Your task to perform on an android device: turn on showing notifications on the lock screen Image 0: 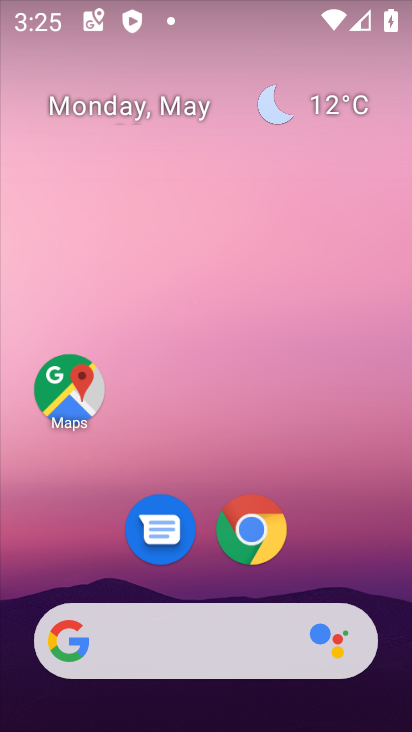
Step 0: drag from (334, 474) to (0, 284)
Your task to perform on an android device: turn on showing notifications on the lock screen Image 1: 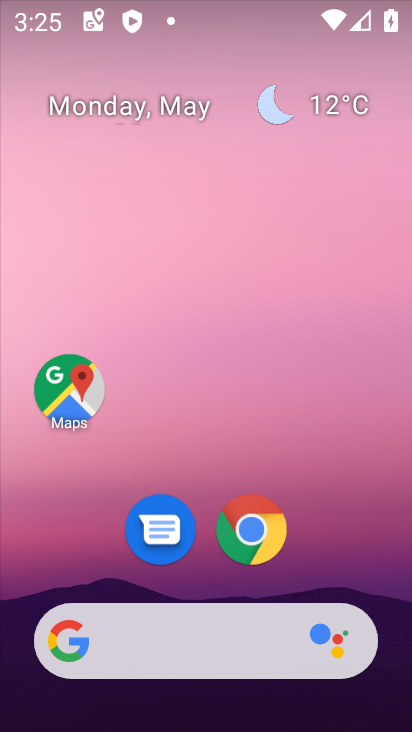
Step 1: drag from (338, 566) to (285, 160)
Your task to perform on an android device: turn on showing notifications on the lock screen Image 2: 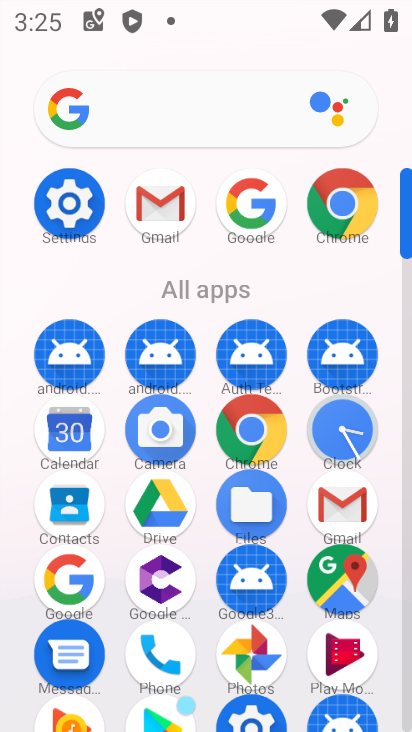
Step 2: click (64, 196)
Your task to perform on an android device: turn on showing notifications on the lock screen Image 3: 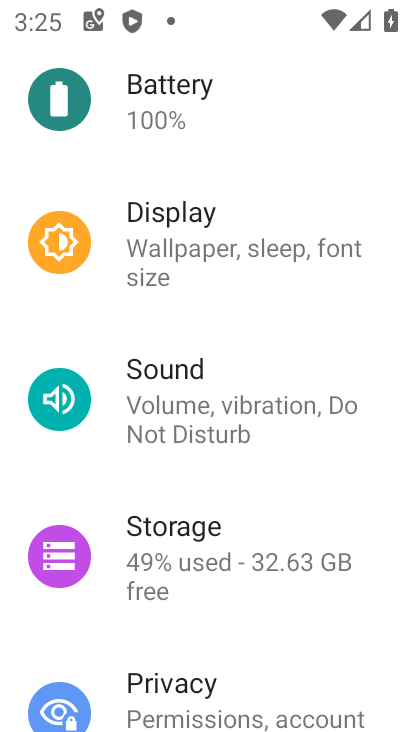
Step 3: drag from (263, 233) to (299, 598)
Your task to perform on an android device: turn on showing notifications on the lock screen Image 4: 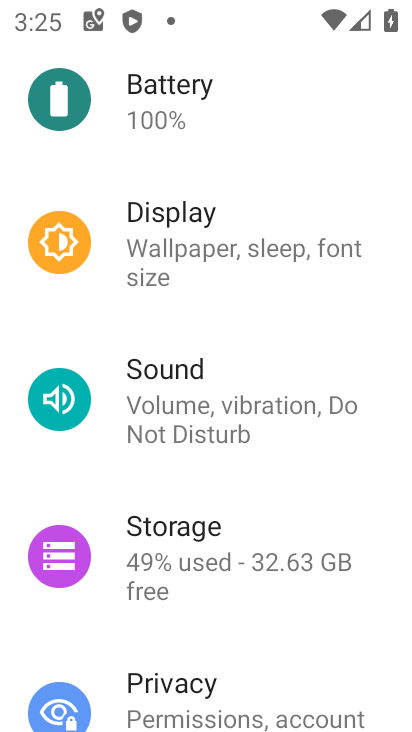
Step 4: drag from (247, 596) to (256, 724)
Your task to perform on an android device: turn on showing notifications on the lock screen Image 5: 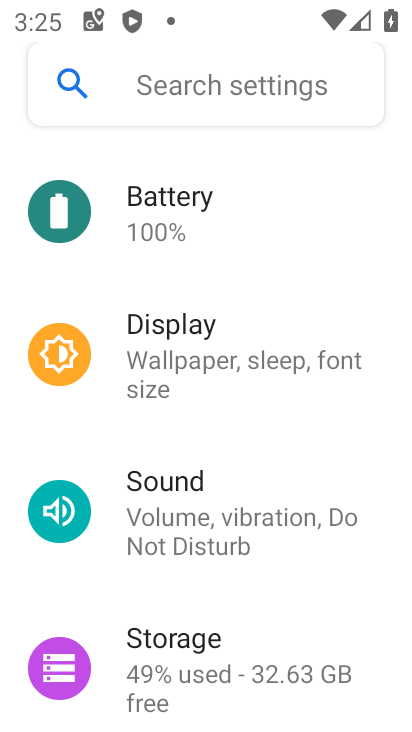
Step 5: drag from (251, 195) to (270, 605)
Your task to perform on an android device: turn on showing notifications on the lock screen Image 6: 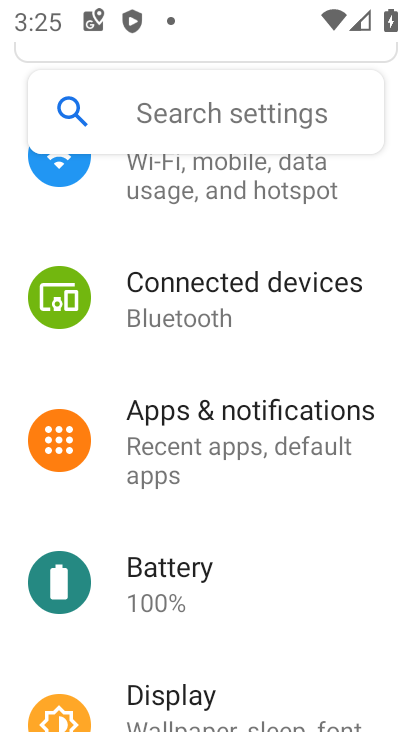
Step 6: click (230, 417)
Your task to perform on an android device: turn on showing notifications on the lock screen Image 7: 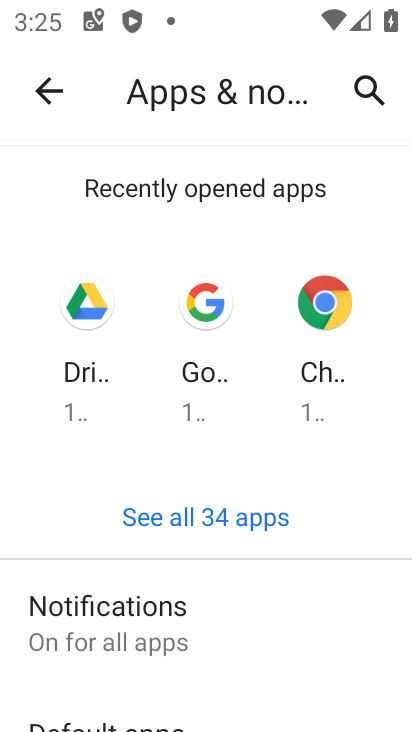
Step 7: click (166, 612)
Your task to perform on an android device: turn on showing notifications on the lock screen Image 8: 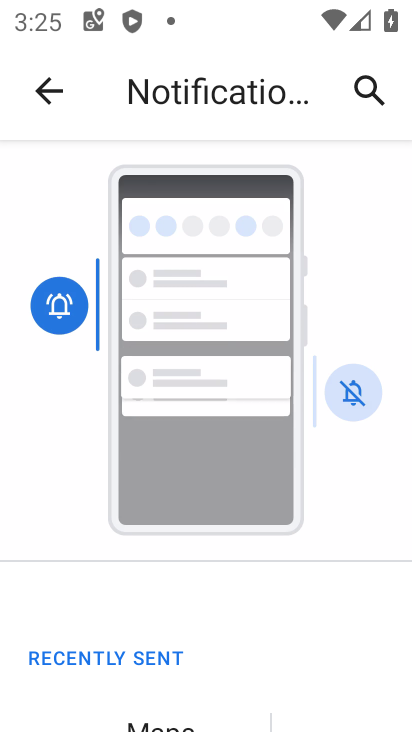
Step 8: drag from (241, 644) to (301, 127)
Your task to perform on an android device: turn on showing notifications on the lock screen Image 9: 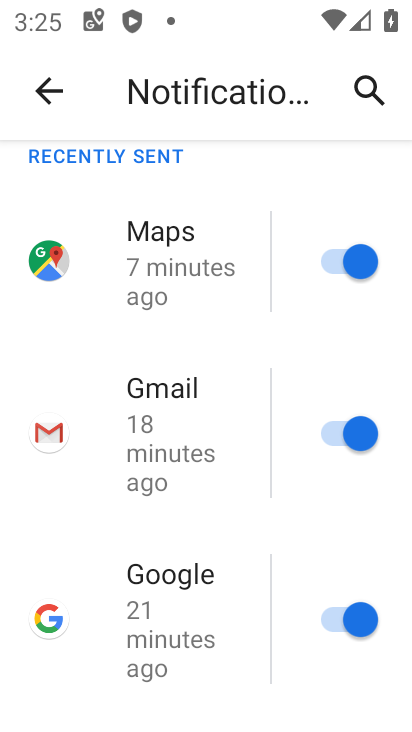
Step 9: drag from (232, 560) to (332, 134)
Your task to perform on an android device: turn on showing notifications on the lock screen Image 10: 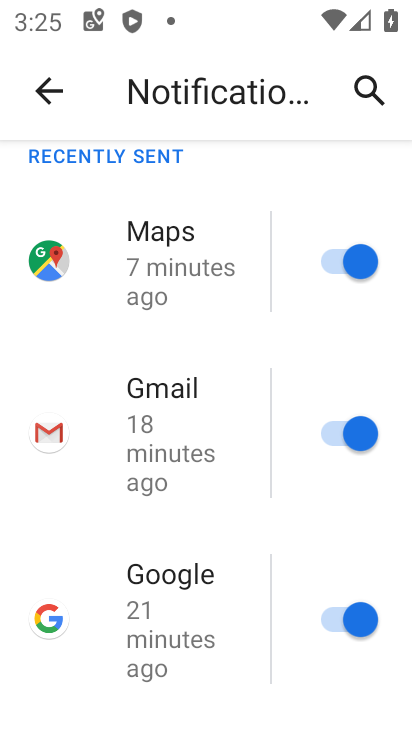
Step 10: drag from (195, 580) to (238, 90)
Your task to perform on an android device: turn on showing notifications on the lock screen Image 11: 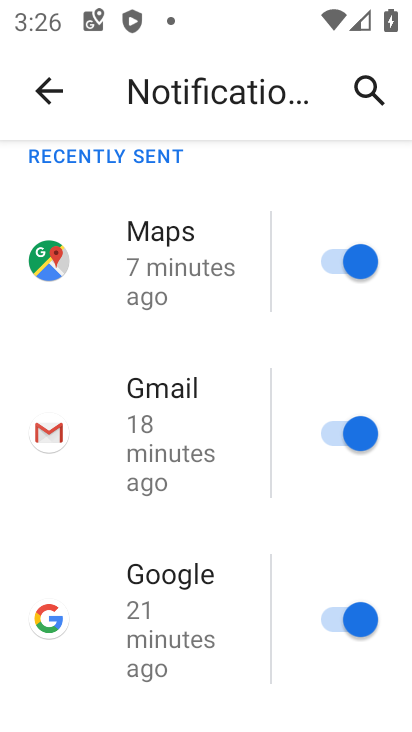
Step 11: drag from (206, 515) to (228, 53)
Your task to perform on an android device: turn on showing notifications on the lock screen Image 12: 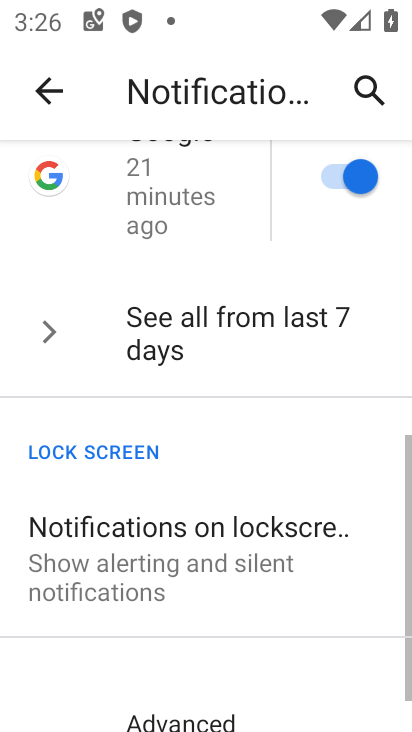
Step 12: drag from (174, 232) to (215, 254)
Your task to perform on an android device: turn on showing notifications on the lock screen Image 13: 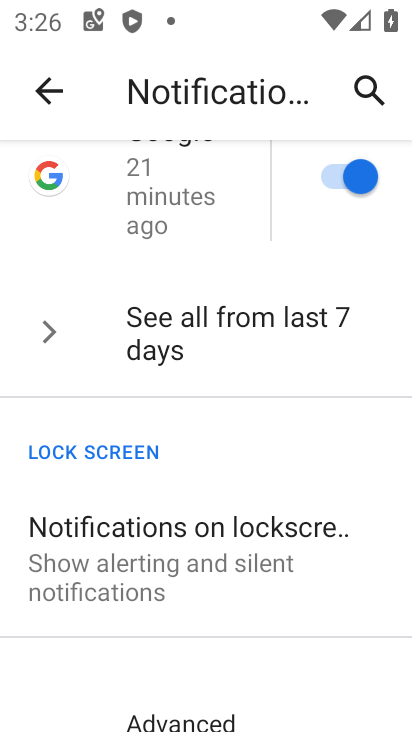
Step 13: drag from (183, 642) to (222, 247)
Your task to perform on an android device: turn on showing notifications on the lock screen Image 14: 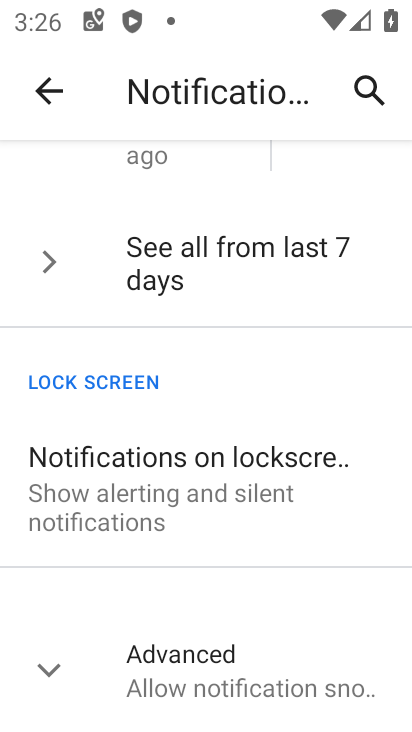
Step 14: click (184, 506)
Your task to perform on an android device: turn on showing notifications on the lock screen Image 15: 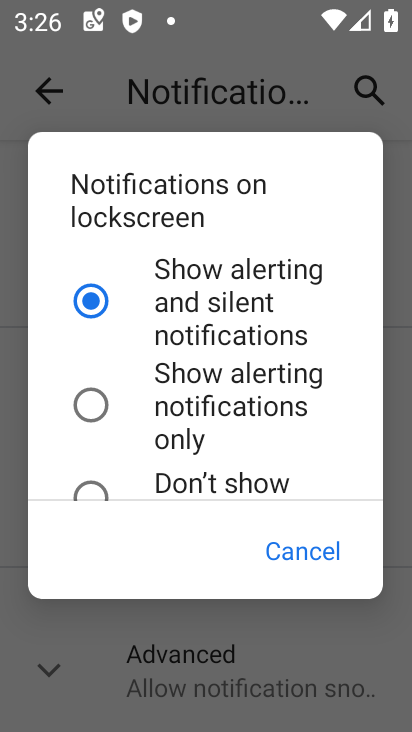
Step 15: click (191, 380)
Your task to perform on an android device: turn on showing notifications on the lock screen Image 16: 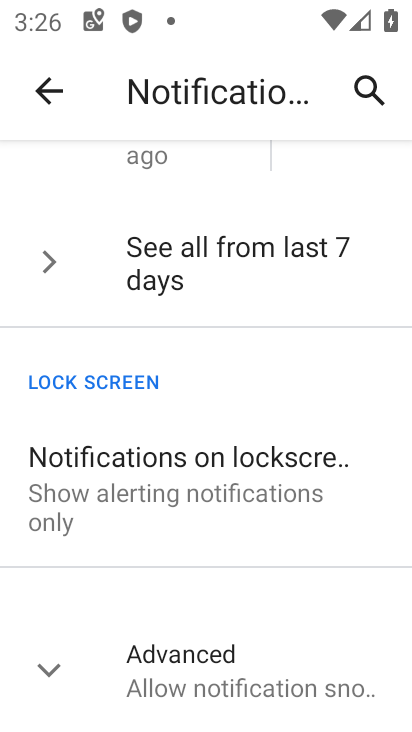
Step 16: task complete